Your task to perform on an android device: turn on data saver in the chrome app Image 0: 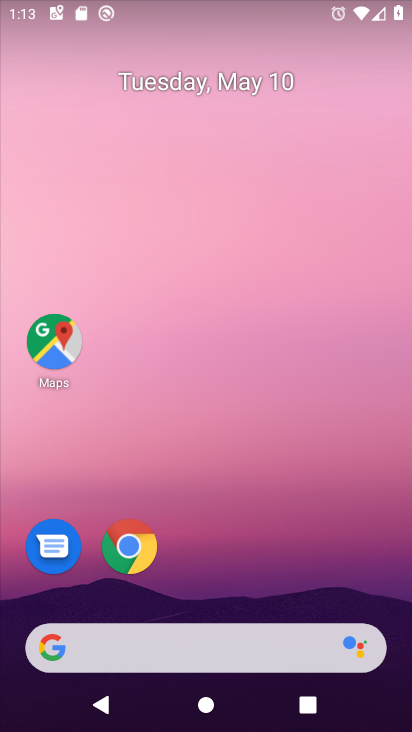
Step 0: click (132, 556)
Your task to perform on an android device: turn on data saver in the chrome app Image 1: 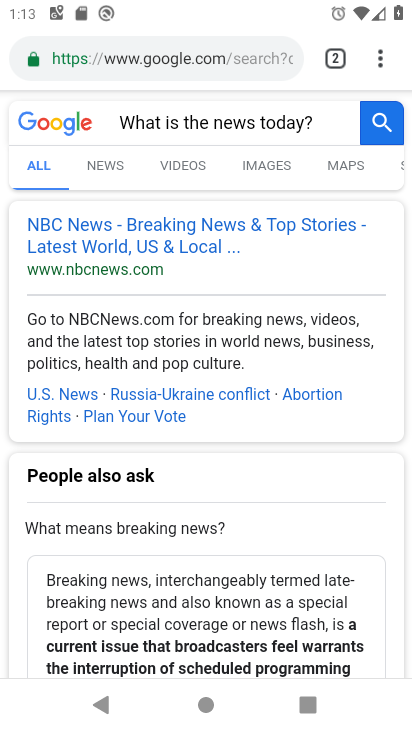
Step 1: drag from (375, 58) to (210, 583)
Your task to perform on an android device: turn on data saver in the chrome app Image 2: 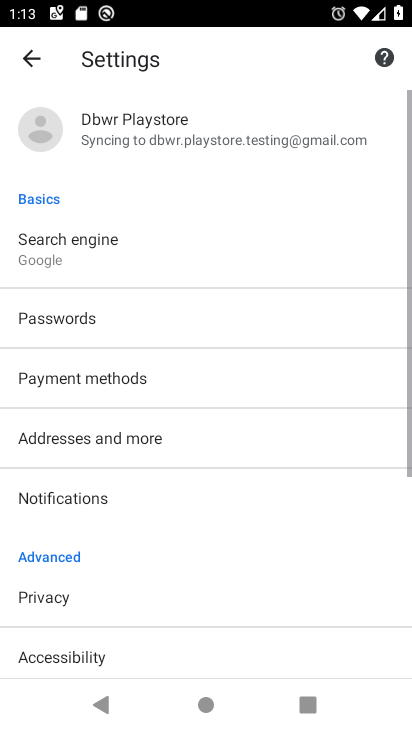
Step 2: drag from (230, 622) to (229, 126)
Your task to perform on an android device: turn on data saver in the chrome app Image 3: 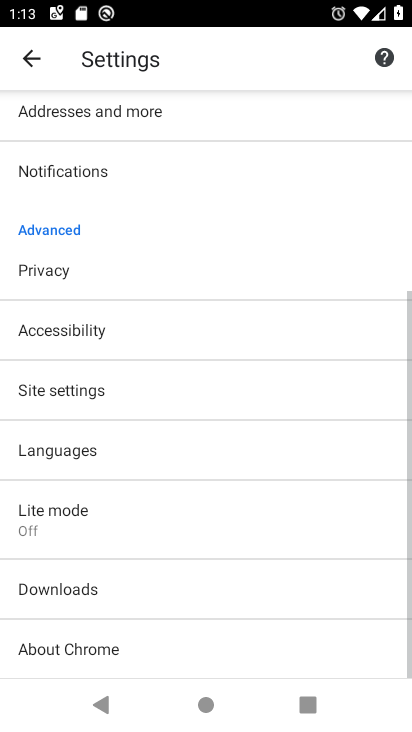
Step 3: click (167, 531)
Your task to perform on an android device: turn on data saver in the chrome app Image 4: 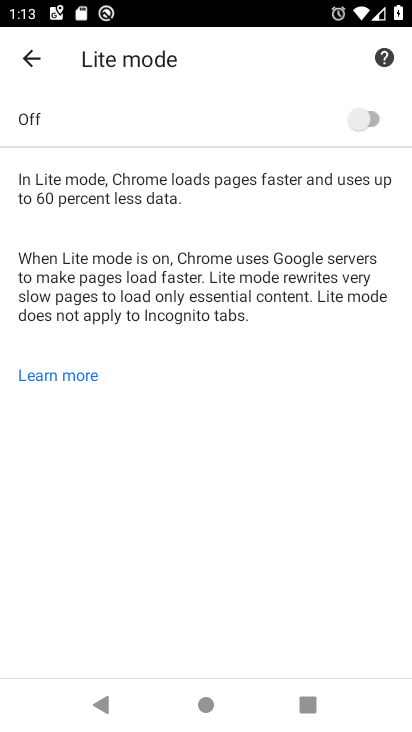
Step 4: click (361, 133)
Your task to perform on an android device: turn on data saver in the chrome app Image 5: 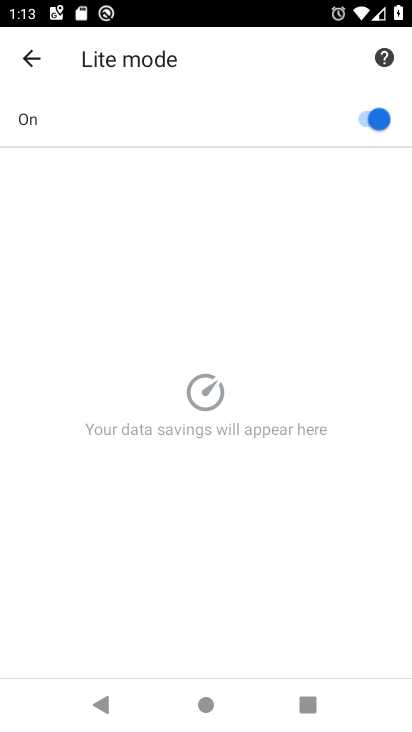
Step 5: task complete